Your task to perform on an android device: Go to Wikipedia Image 0: 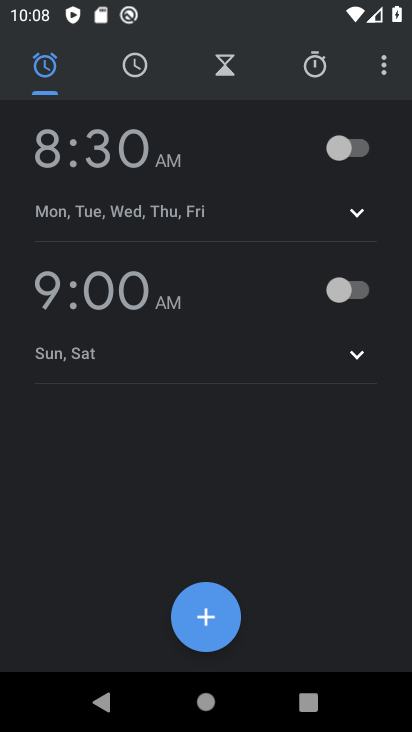
Step 0: press home button
Your task to perform on an android device: Go to Wikipedia Image 1: 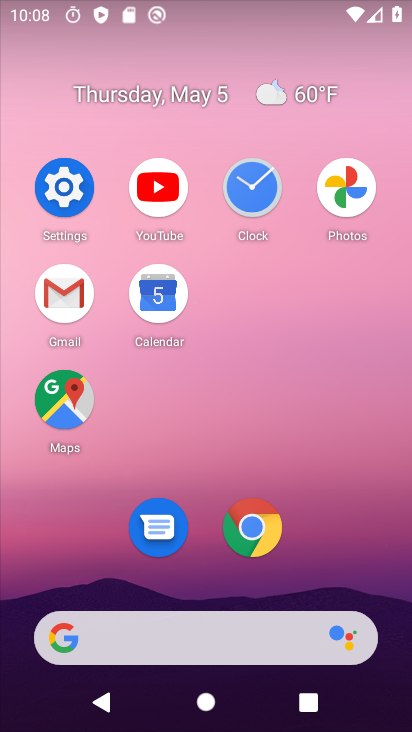
Step 1: click (246, 534)
Your task to perform on an android device: Go to Wikipedia Image 2: 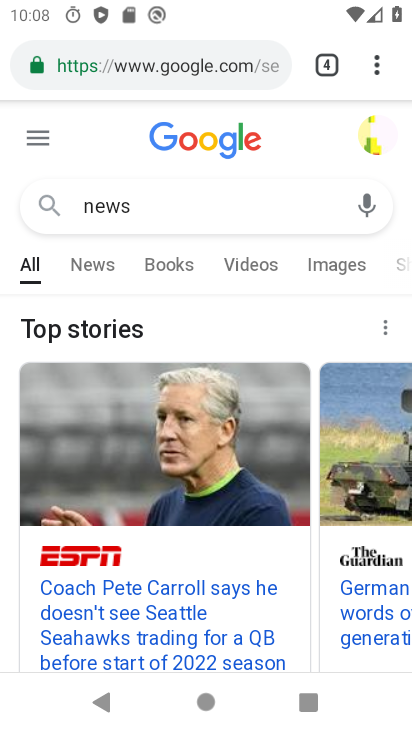
Step 2: click (331, 62)
Your task to perform on an android device: Go to Wikipedia Image 3: 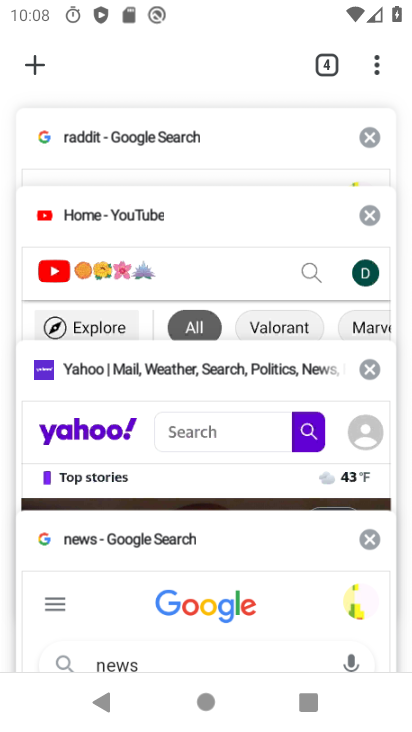
Step 3: click (42, 61)
Your task to perform on an android device: Go to Wikipedia Image 4: 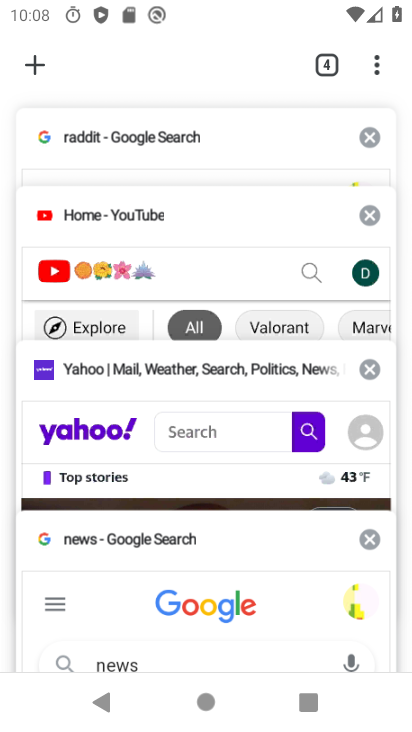
Step 4: click (42, 62)
Your task to perform on an android device: Go to Wikipedia Image 5: 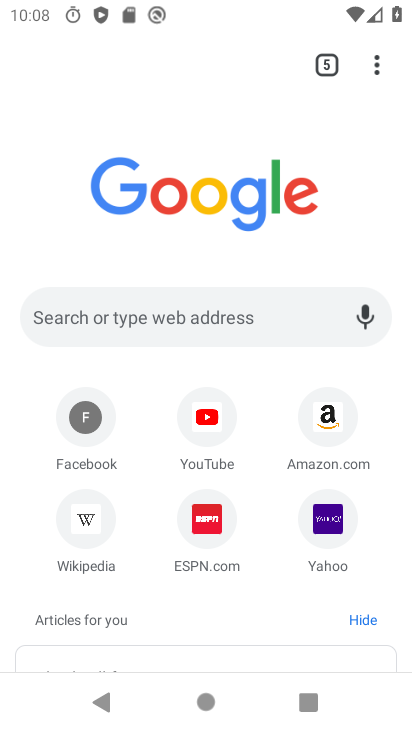
Step 5: click (92, 501)
Your task to perform on an android device: Go to Wikipedia Image 6: 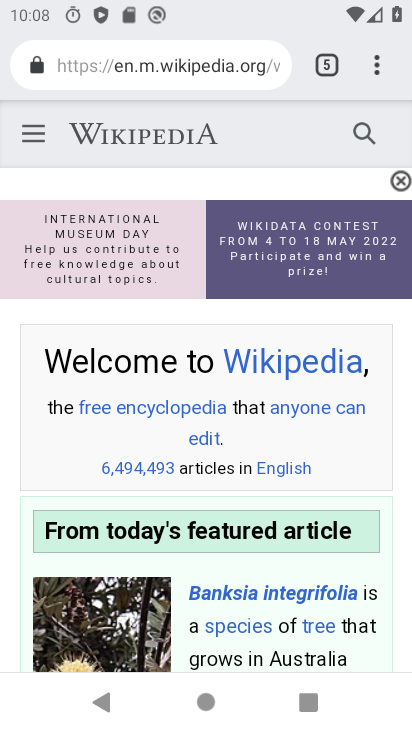
Step 6: task complete